Your task to perform on an android device: install app "Facebook" Image 0: 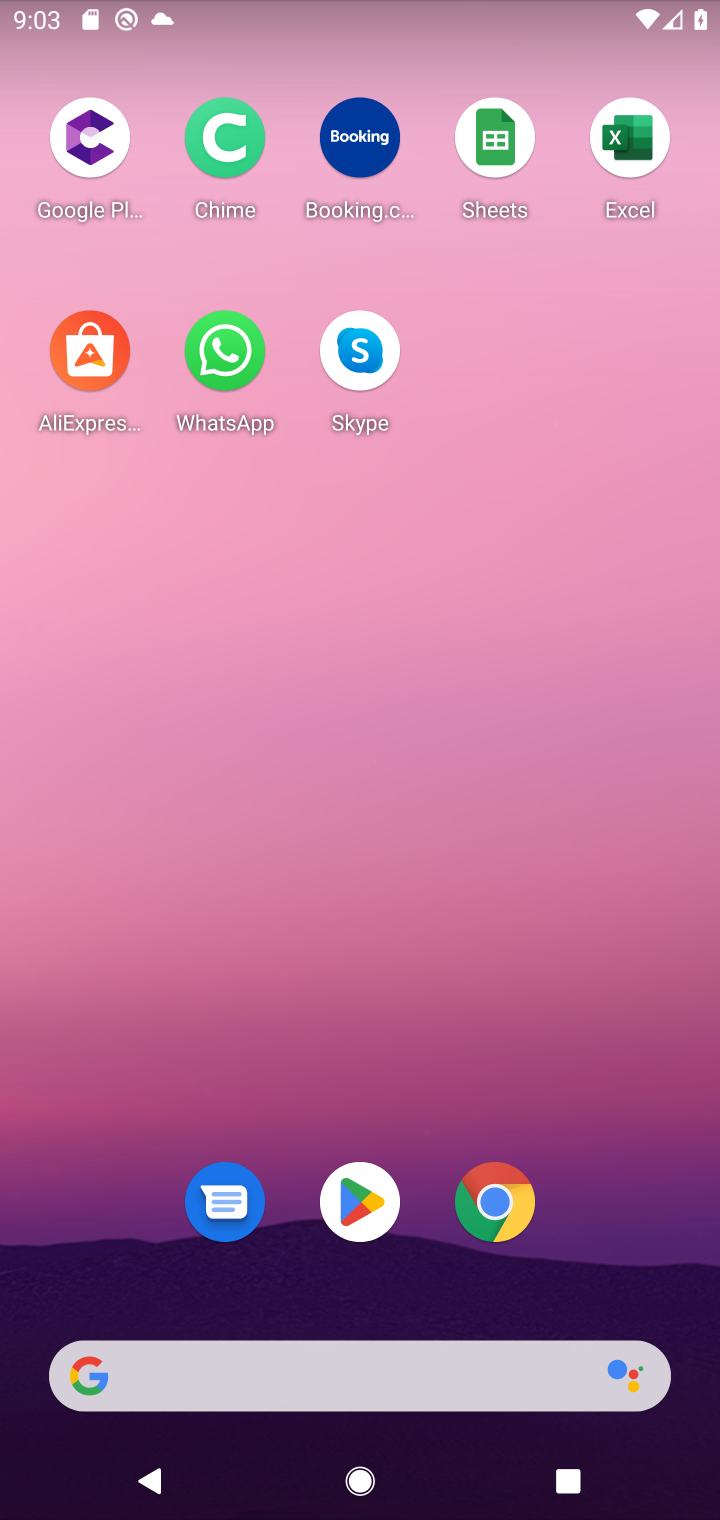
Step 0: click (355, 1216)
Your task to perform on an android device: install app "Facebook" Image 1: 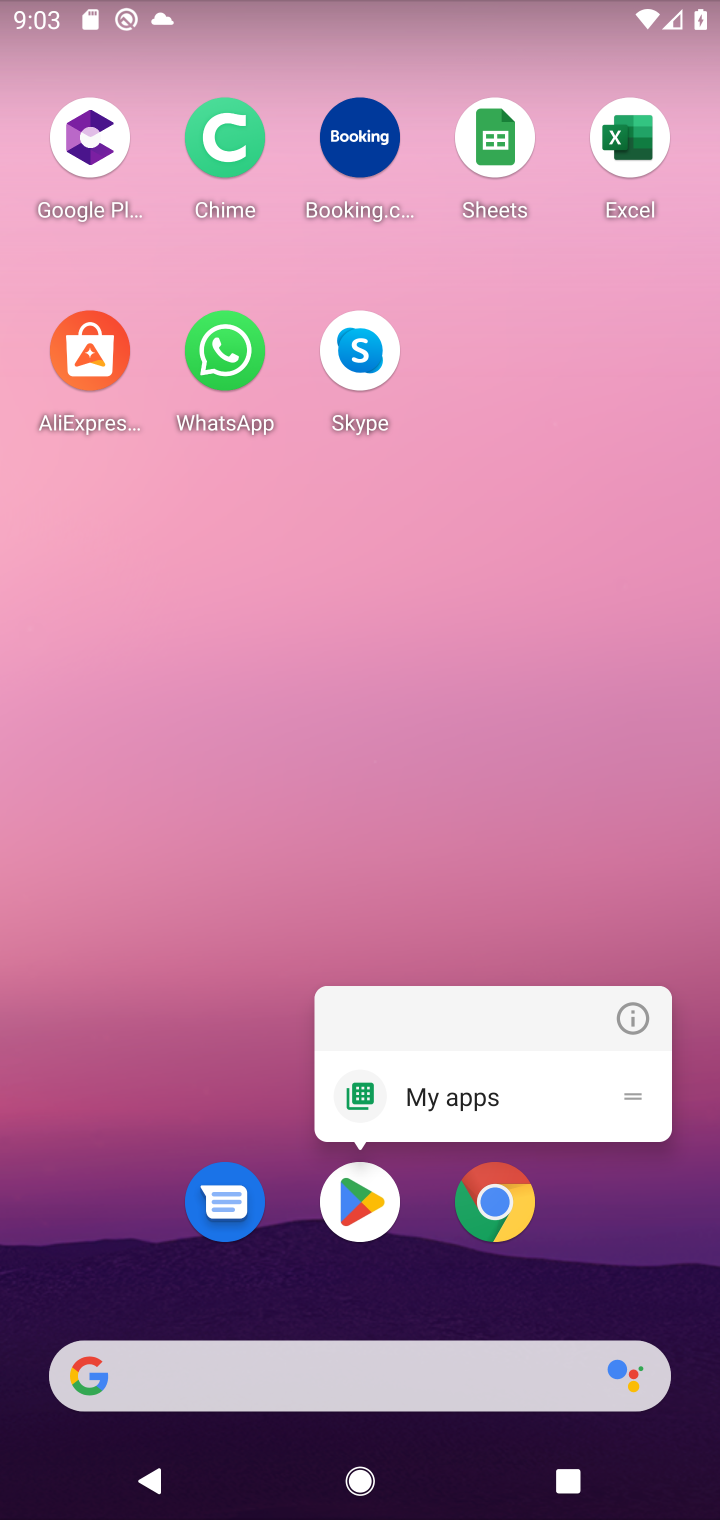
Step 1: click (352, 1189)
Your task to perform on an android device: install app "Facebook" Image 2: 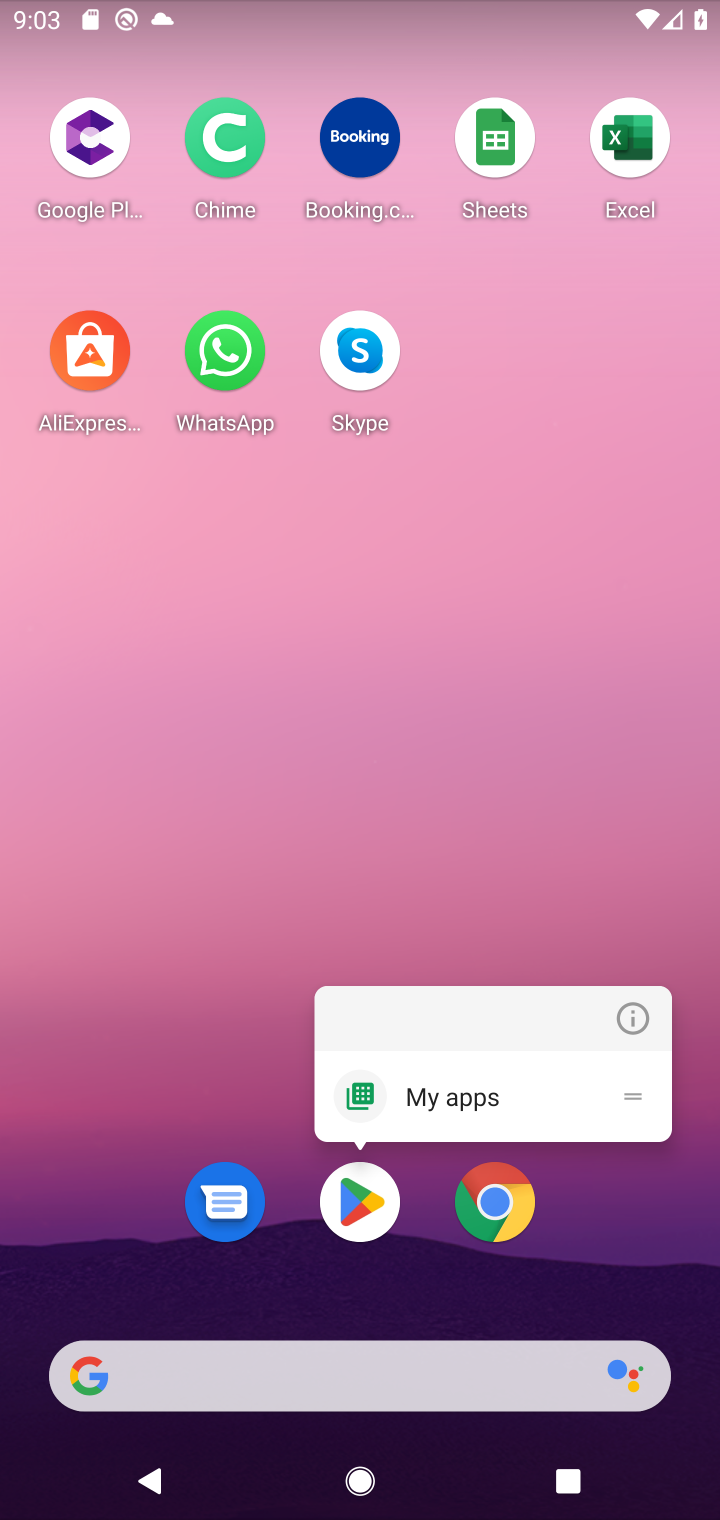
Step 2: click (372, 1189)
Your task to perform on an android device: install app "Facebook" Image 3: 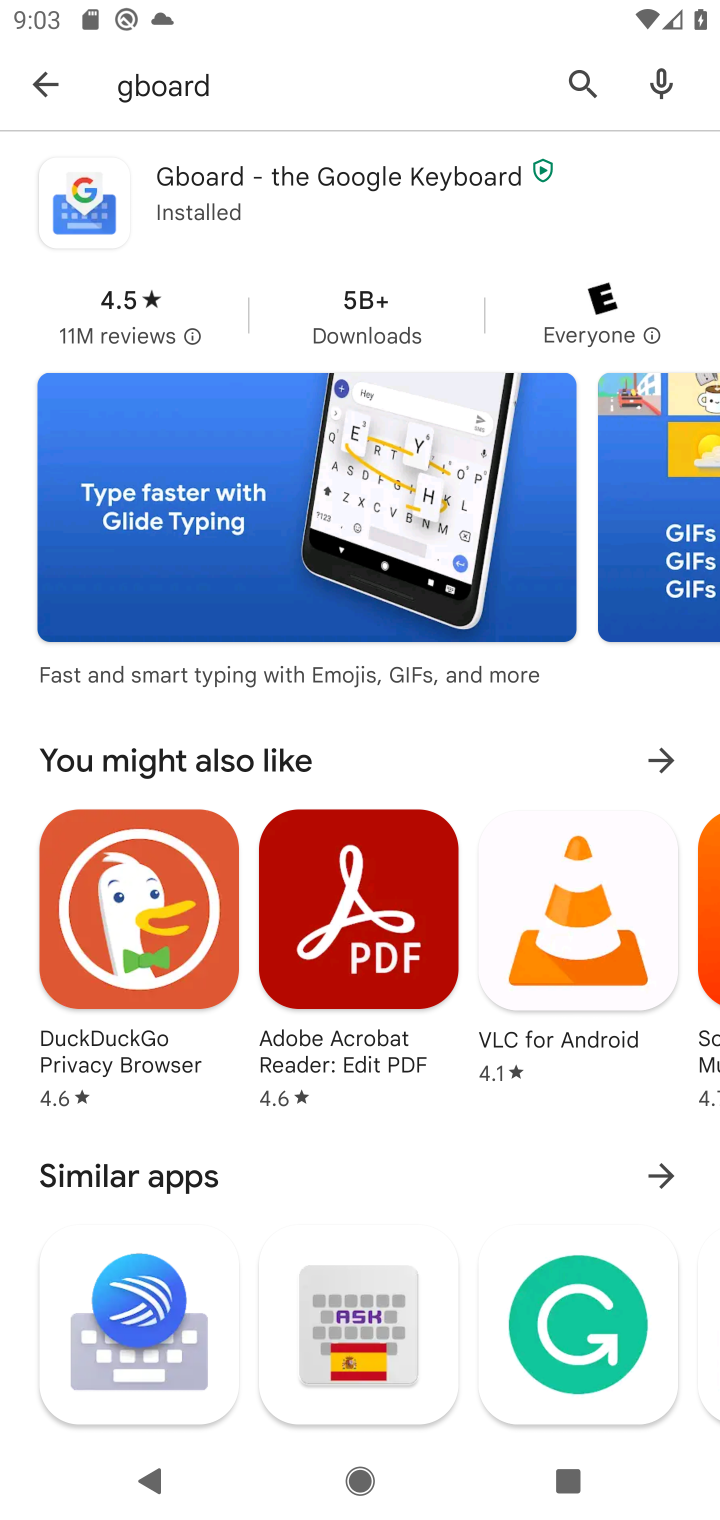
Step 3: click (580, 75)
Your task to perform on an android device: install app "Facebook" Image 4: 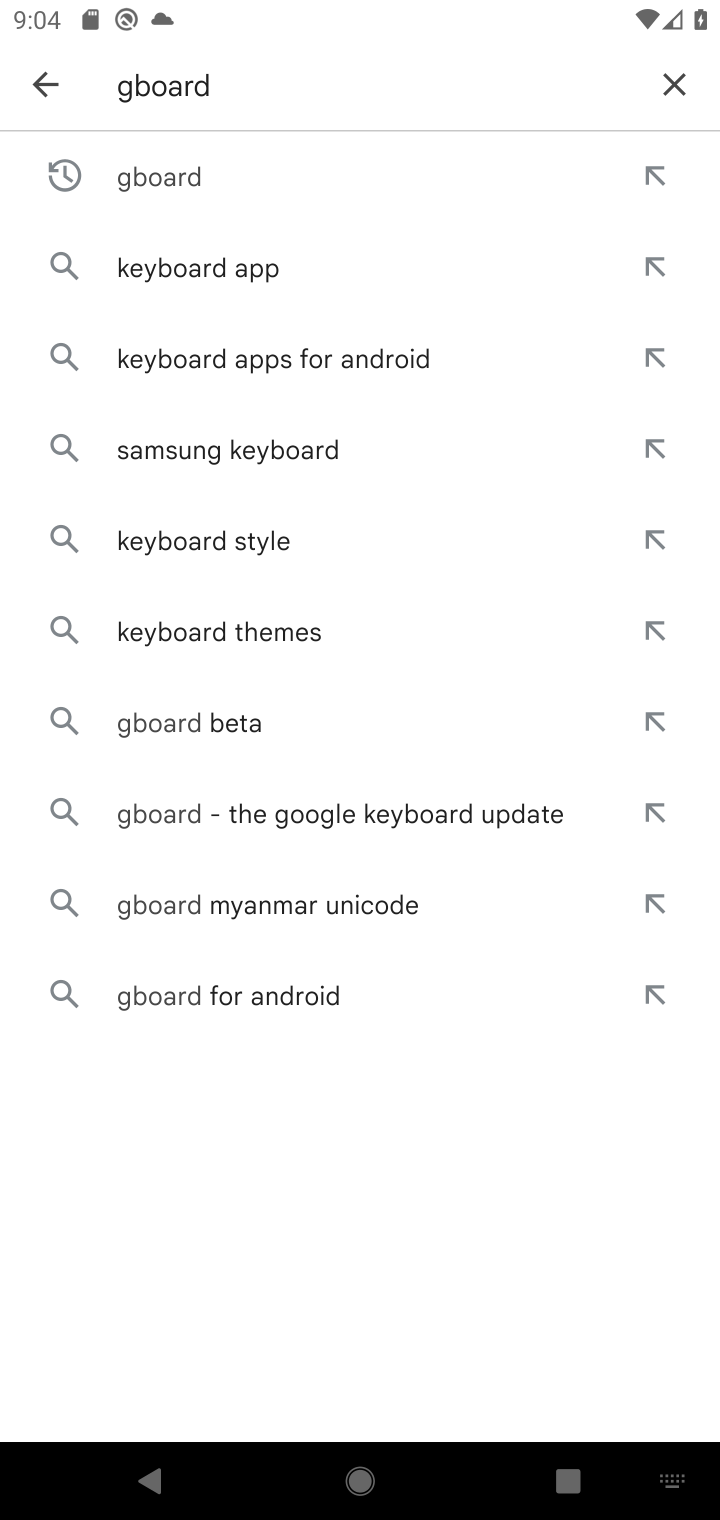
Step 4: click (670, 83)
Your task to perform on an android device: install app "Facebook" Image 5: 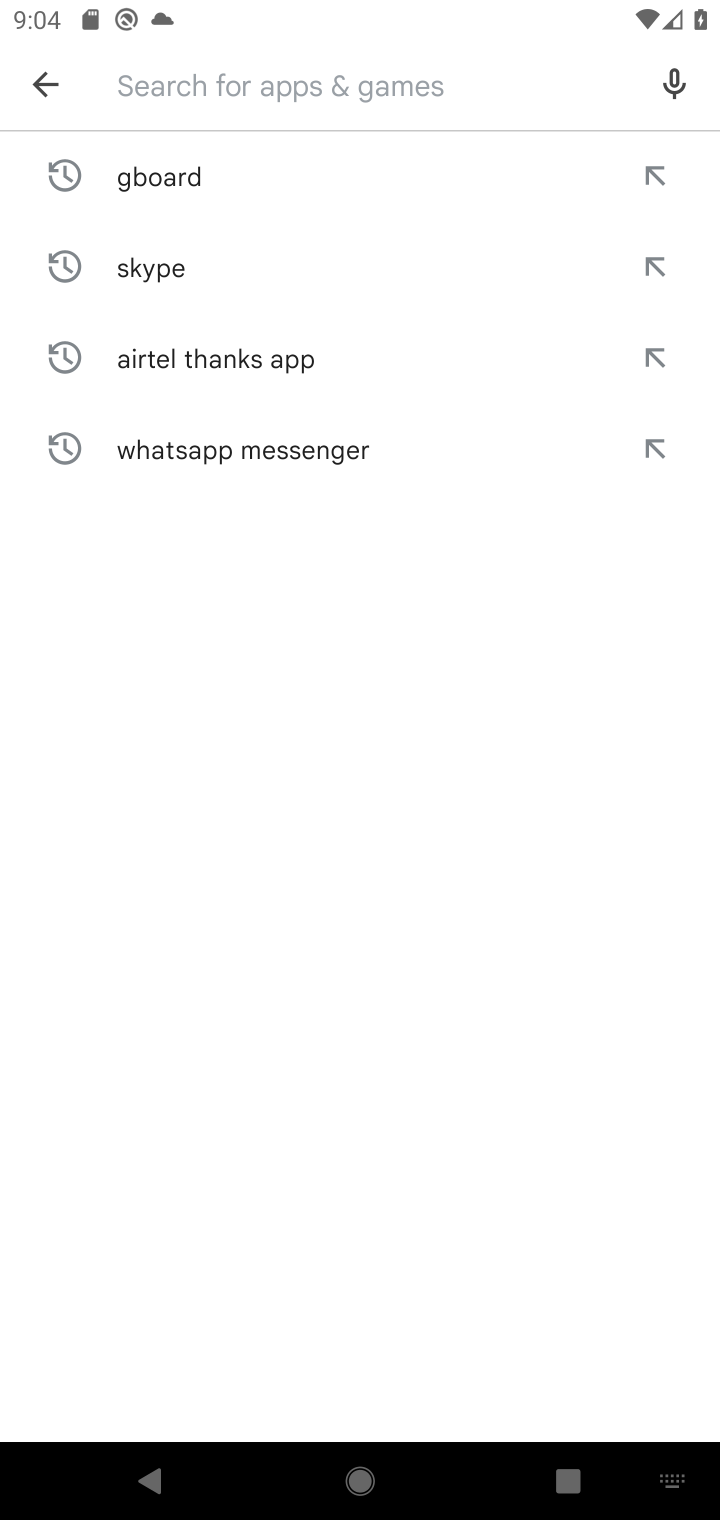
Step 5: click (243, 84)
Your task to perform on an android device: install app "Facebook" Image 6: 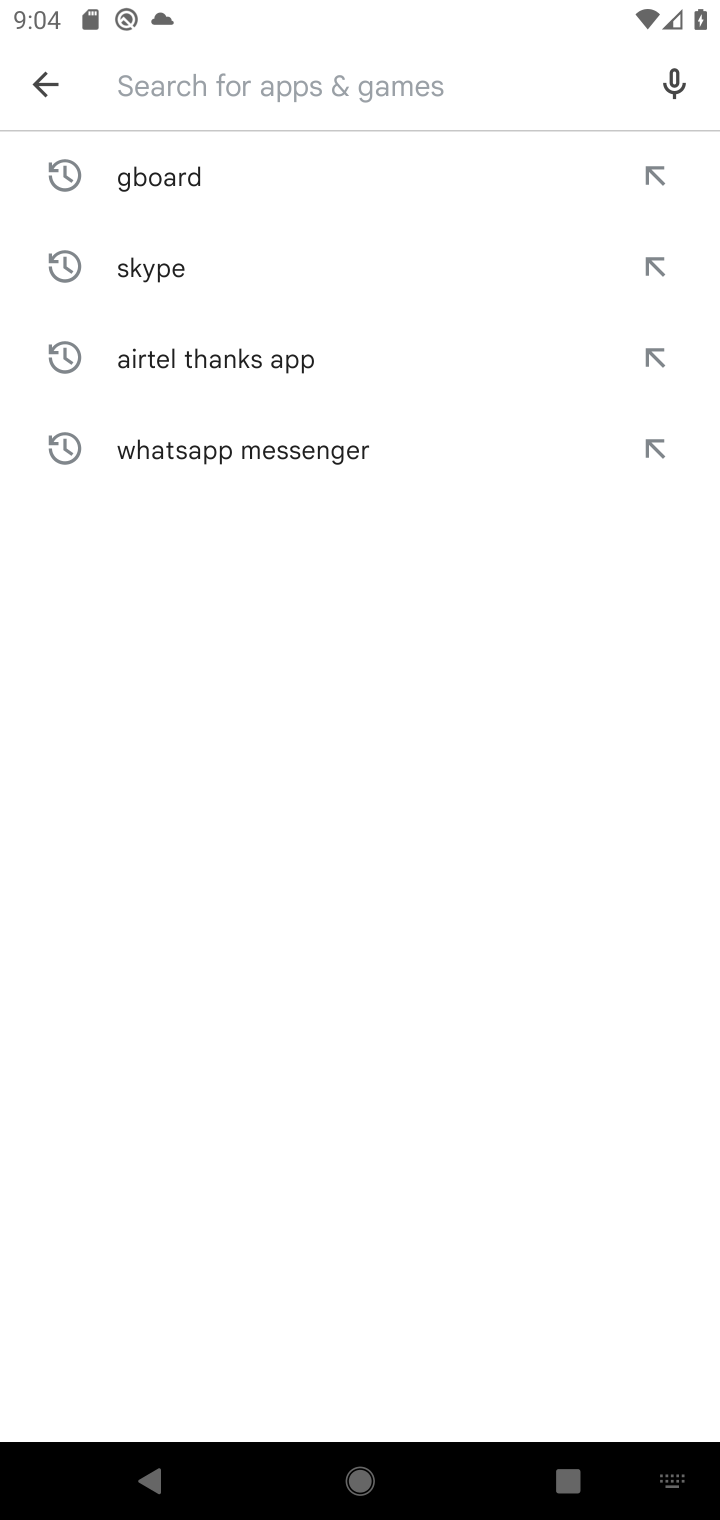
Step 6: type "facebook"
Your task to perform on an android device: install app "Facebook" Image 7: 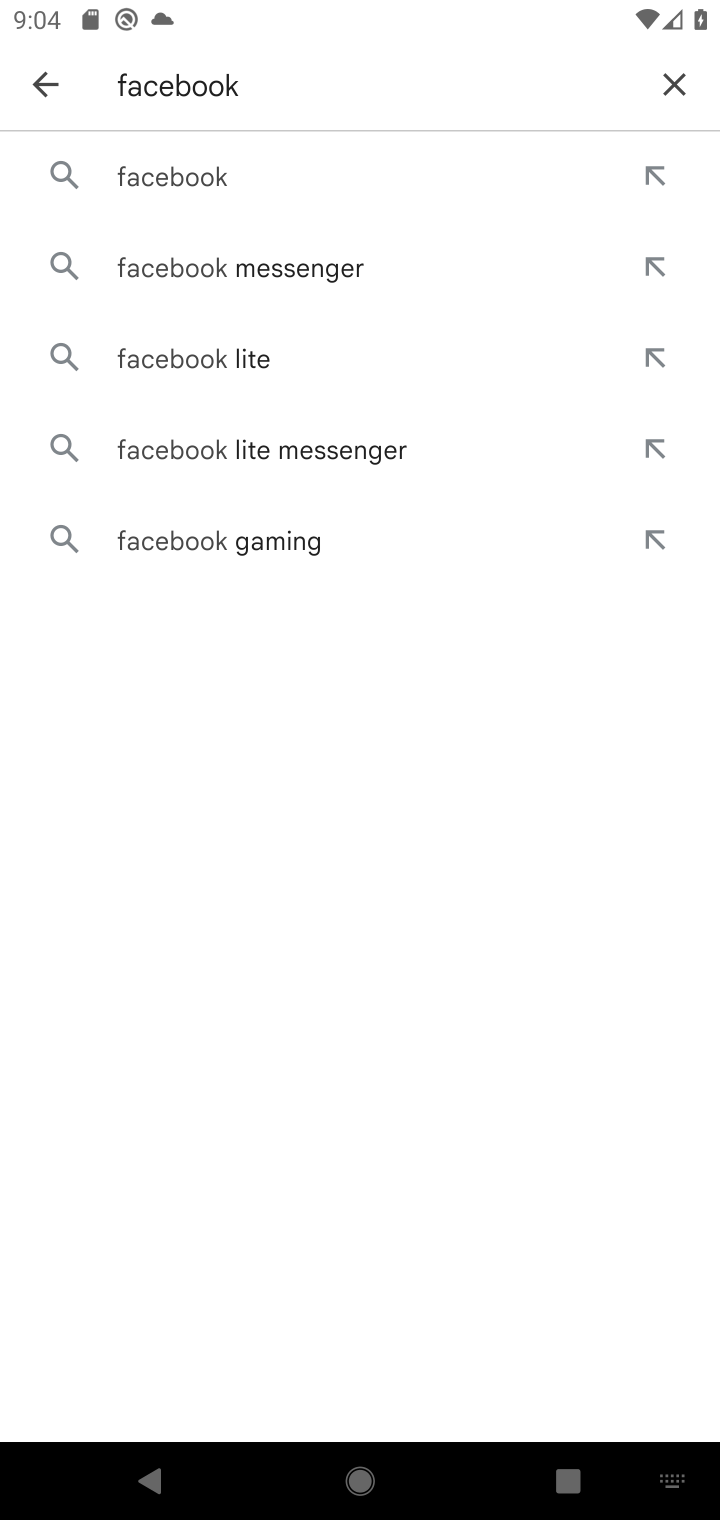
Step 7: click (199, 168)
Your task to perform on an android device: install app "Facebook" Image 8: 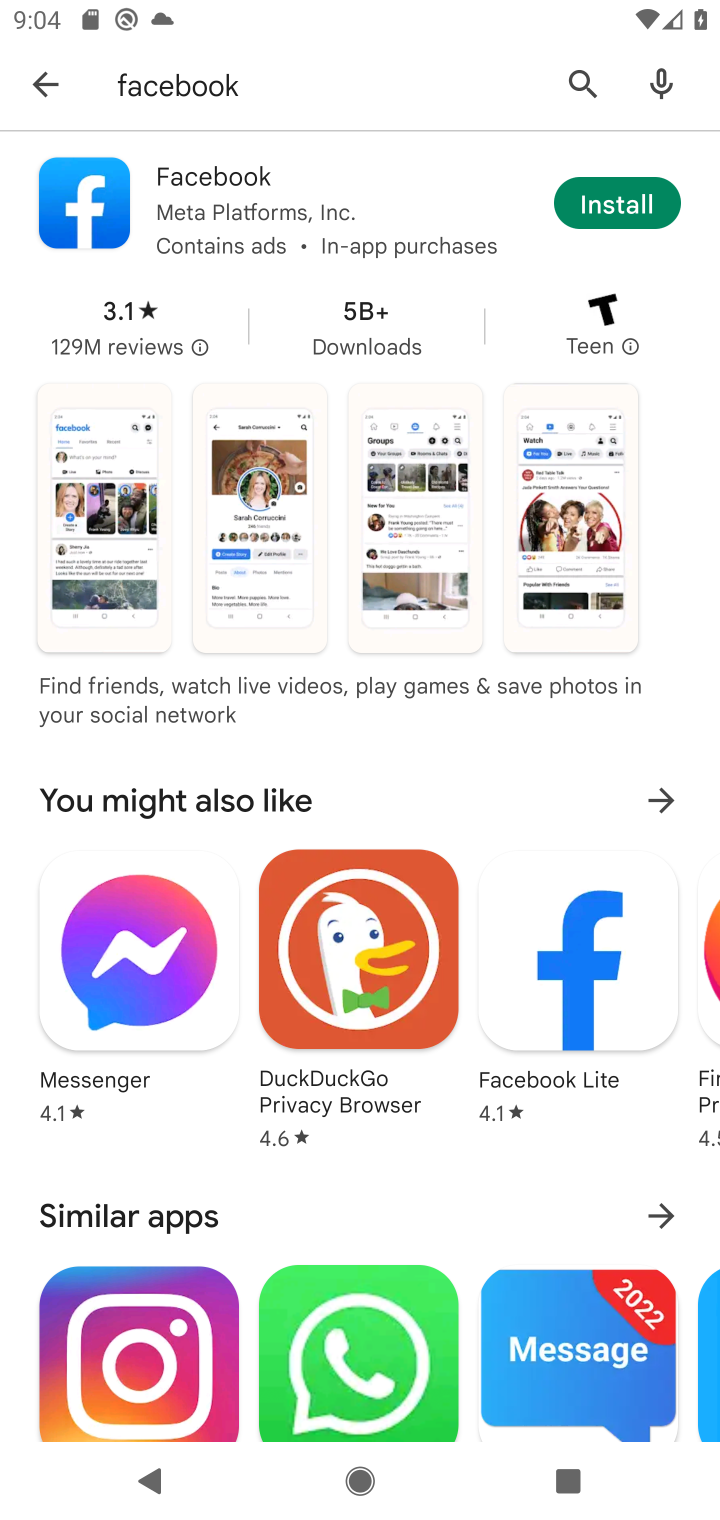
Step 8: click (600, 211)
Your task to perform on an android device: install app "Facebook" Image 9: 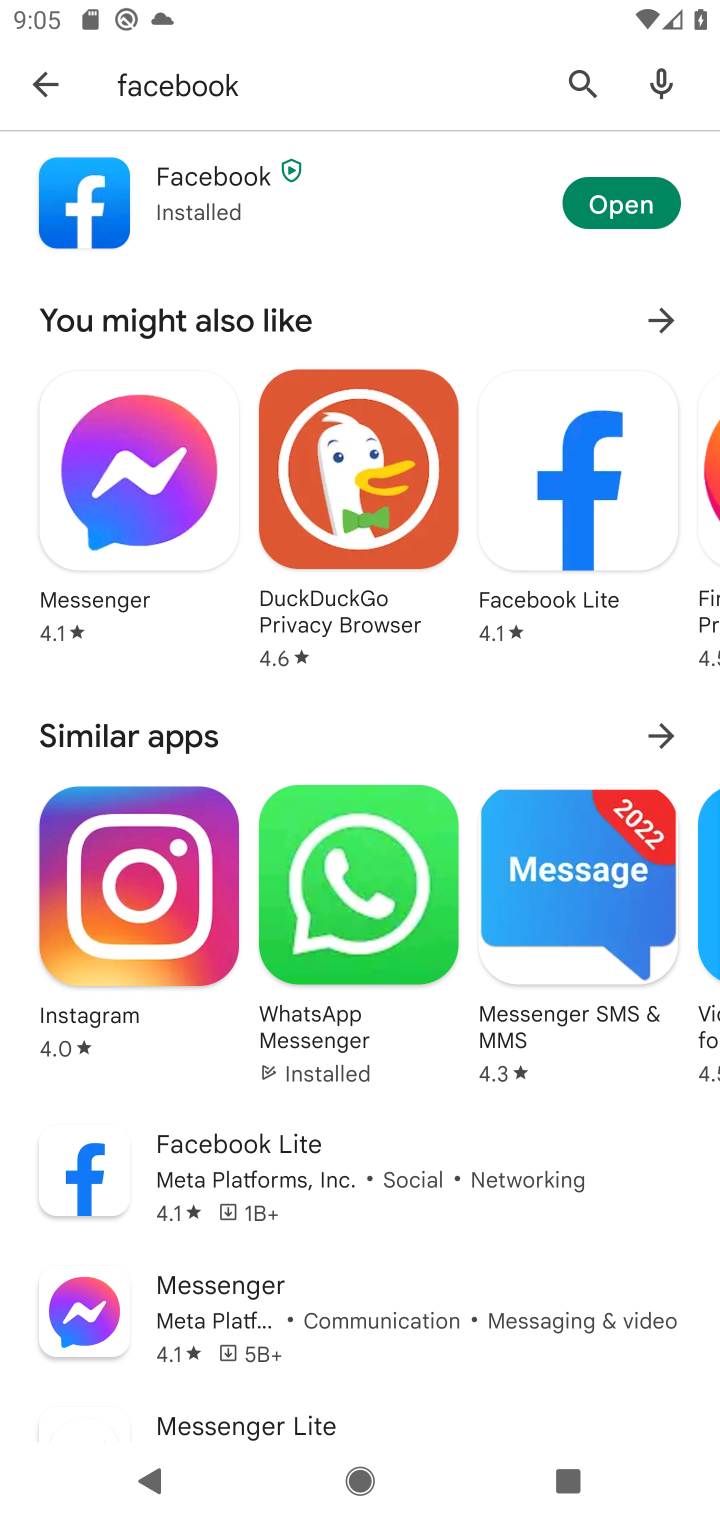
Step 9: task complete